Your task to perform on an android device: set default search engine in the chrome app Image 0: 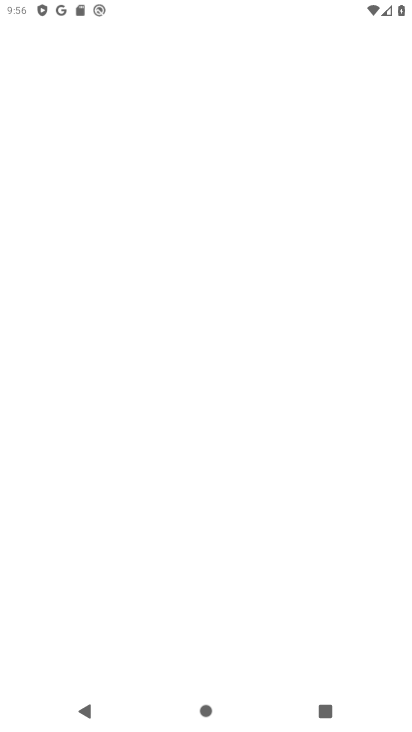
Step 0: press home button
Your task to perform on an android device: set default search engine in the chrome app Image 1: 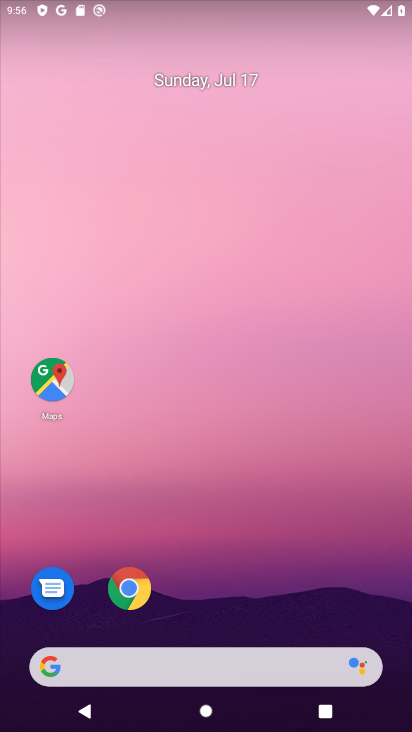
Step 1: drag from (224, 619) to (208, 14)
Your task to perform on an android device: set default search engine in the chrome app Image 2: 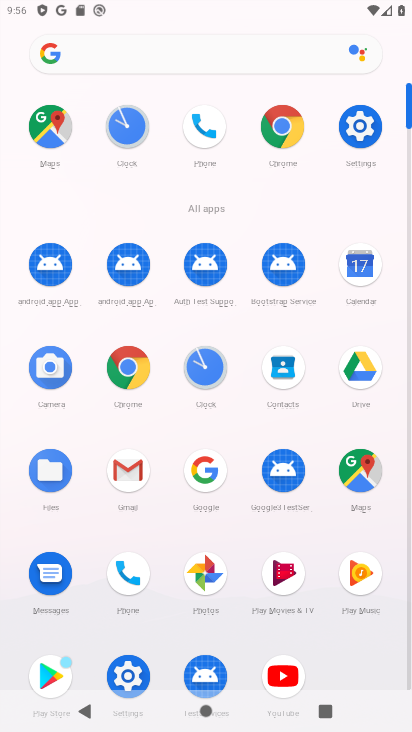
Step 2: click (140, 368)
Your task to perform on an android device: set default search engine in the chrome app Image 3: 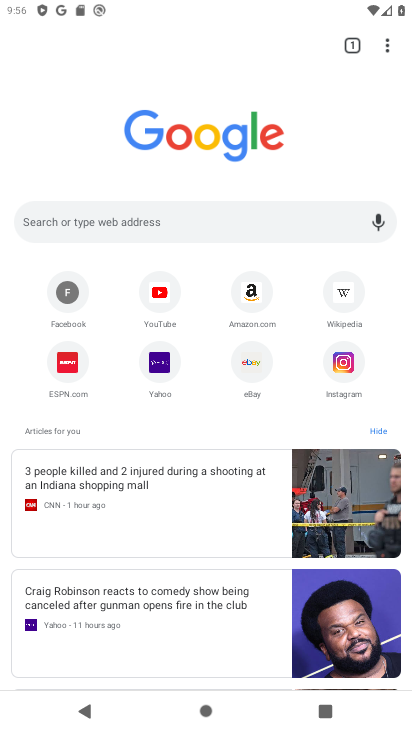
Step 3: drag from (386, 45) to (215, 377)
Your task to perform on an android device: set default search engine in the chrome app Image 4: 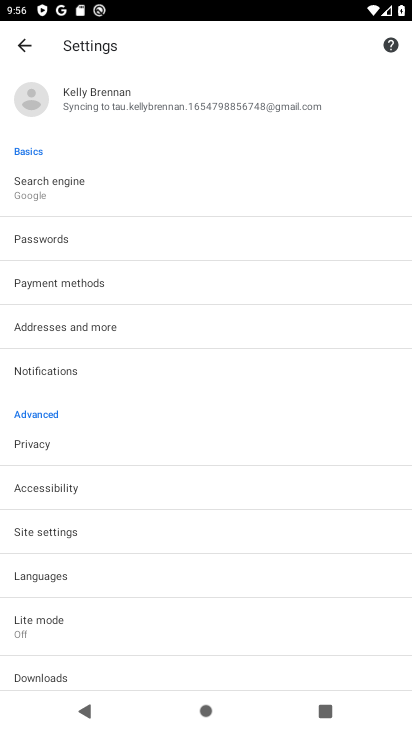
Step 4: click (26, 186)
Your task to perform on an android device: set default search engine in the chrome app Image 5: 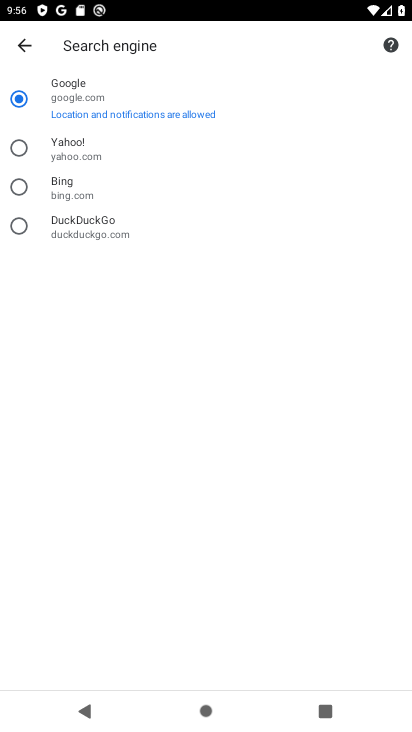
Step 5: click (27, 85)
Your task to perform on an android device: set default search engine in the chrome app Image 6: 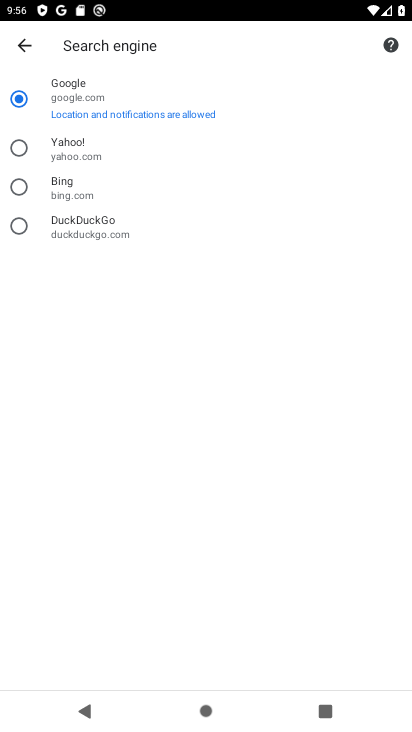
Step 6: task complete